Your task to perform on an android device: Show me recent news Image 0: 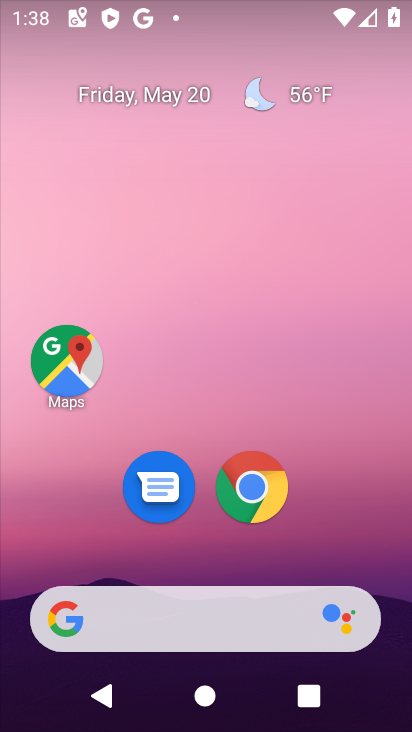
Step 0: press home button
Your task to perform on an android device: Show me recent news Image 1: 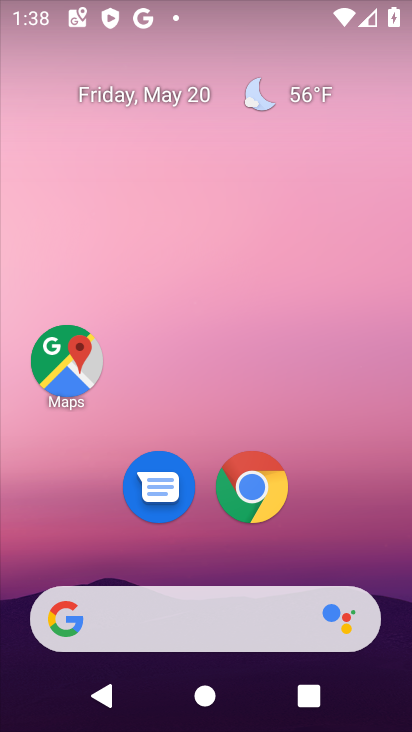
Step 1: task complete